Your task to perform on an android device: turn on airplane mode Image 0: 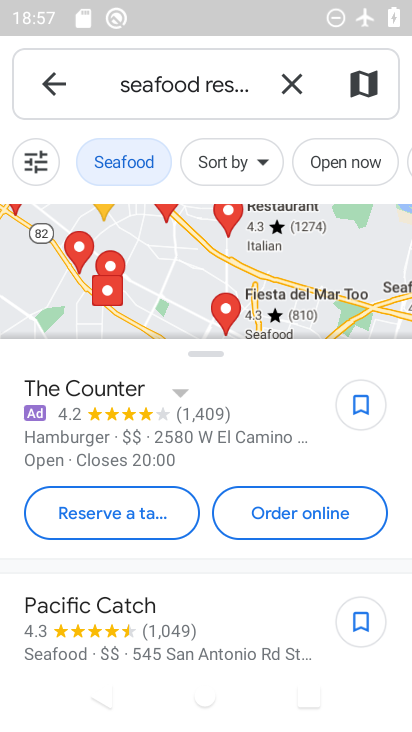
Step 0: press home button
Your task to perform on an android device: turn on airplane mode Image 1: 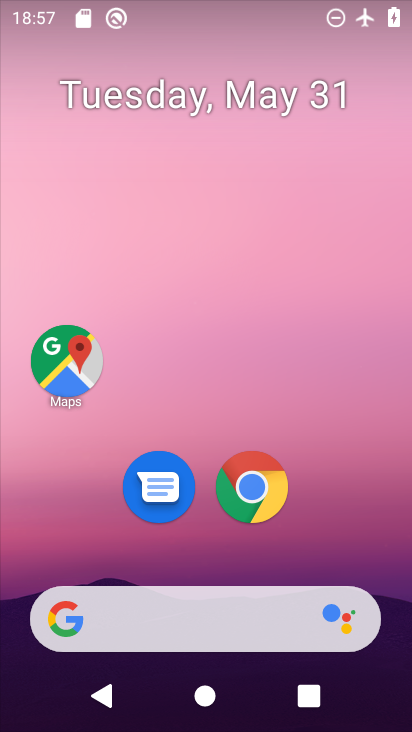
Step 1: drag from (348, 500) to (241, 40)
Your task to perform on an android device: turn on airplane mode Image 2: 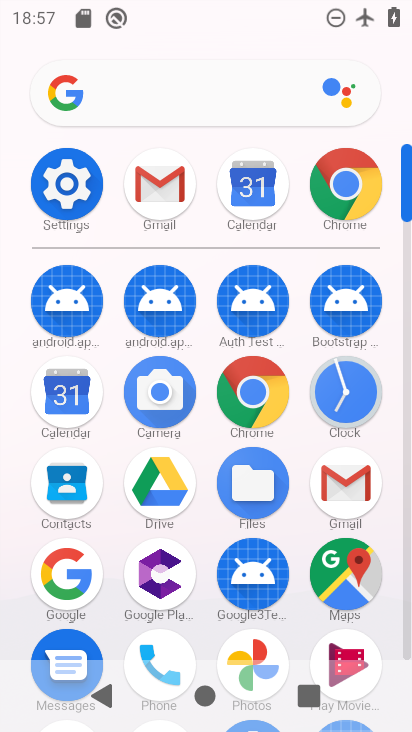
Step 2: click (58, 177)
Your task to perform on an android device: turn on airplane mode Image 3: 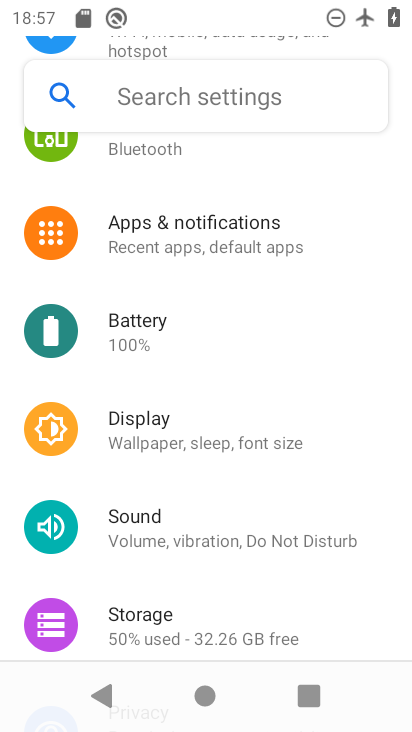
Step 3: drag from (187, 287) to (194, 683)
Your task to perform on an android device: turn on airplane mode Image 4: 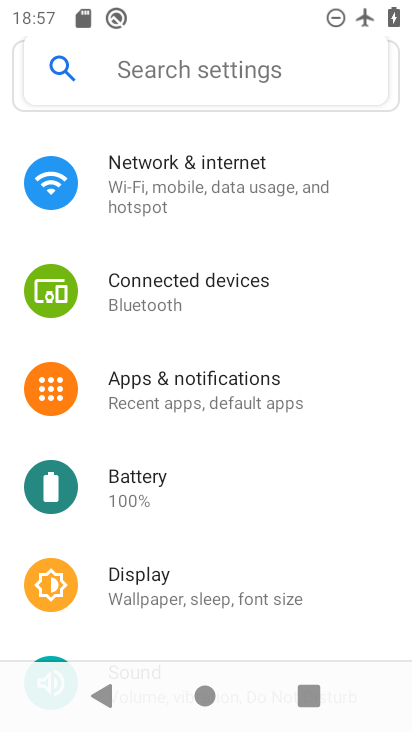
Step 4: click (146, 170)
Your task to perform on an android device: turn on airplane mode Image 5: 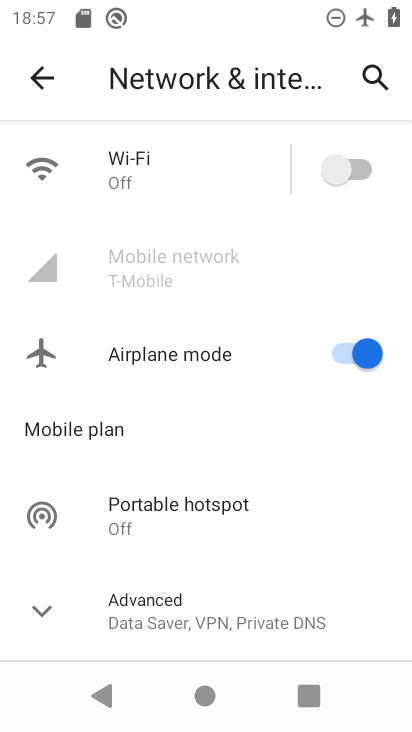
Step 5: task complete